Your task to perform on an android device: Open location settings Image 0: 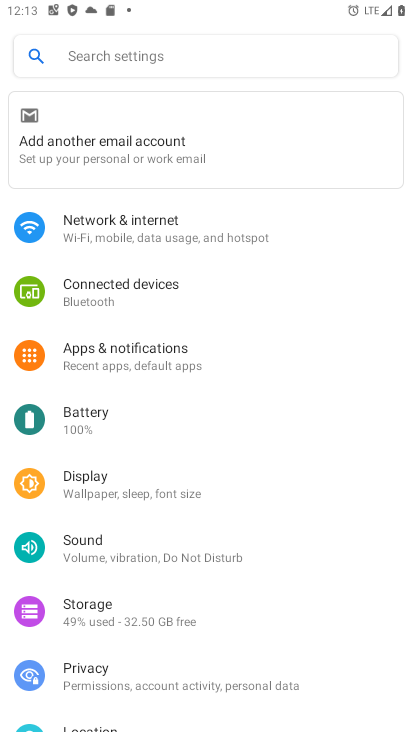
Step 0: press home button
Your task to perform on an android device: Open location settings Image 1: 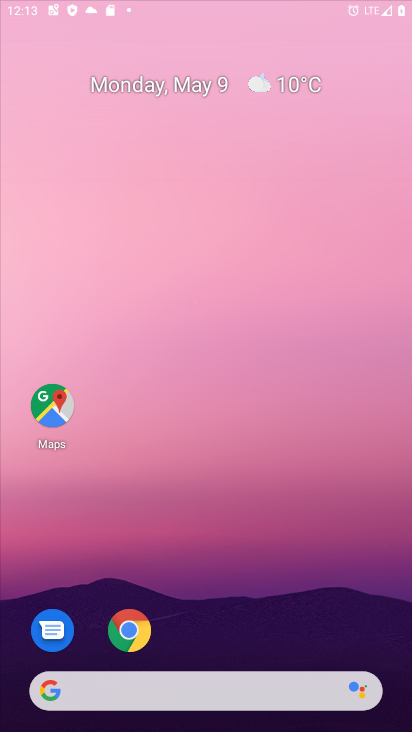
Step 1: drag from (324, 654) to (272, 94)
Your task to perform on an android device: Open location settings Image 2: 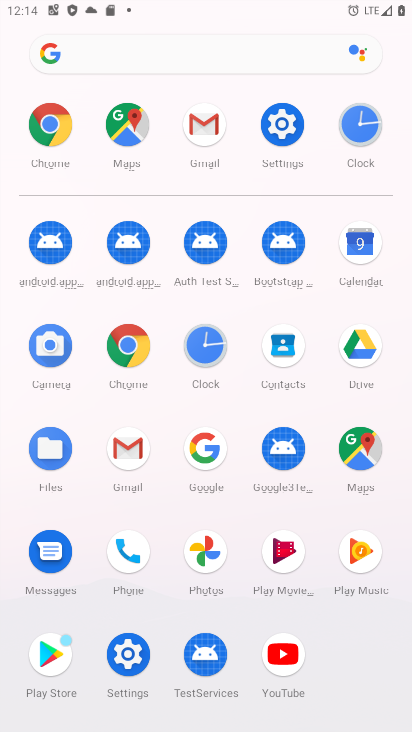
Step 2: click (148, 648)
Your task to perform on an android device: Open location settings Image 3: 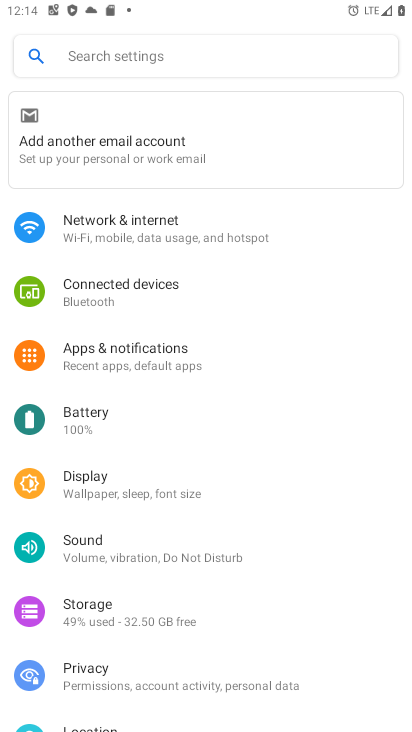
Step 3: click (108, 720)
Your task to perform on an android device: Open location settings Image 4: 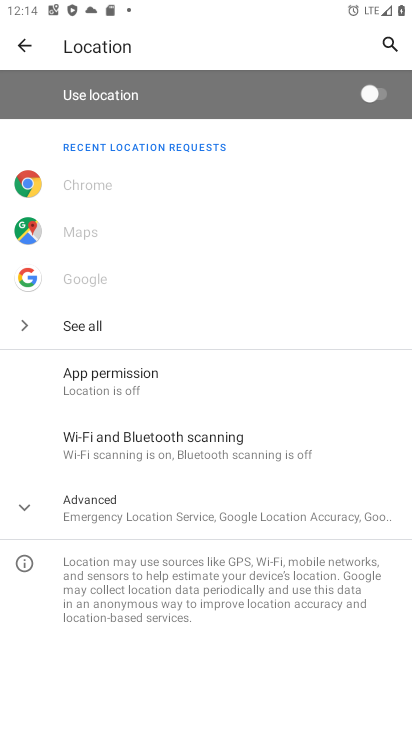
Step 4: task complete